Your task to perform on an android device: Open display settings Image 0: 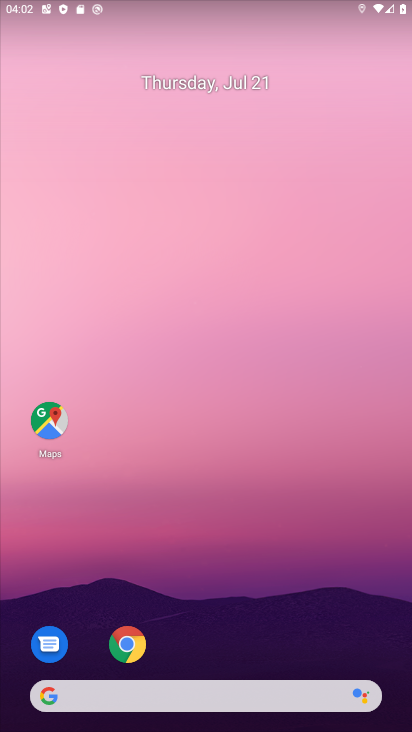
Step 0: drag from (267, 674) to (269, 63)
Your task to perform on an android device: Open display settings Image 1: 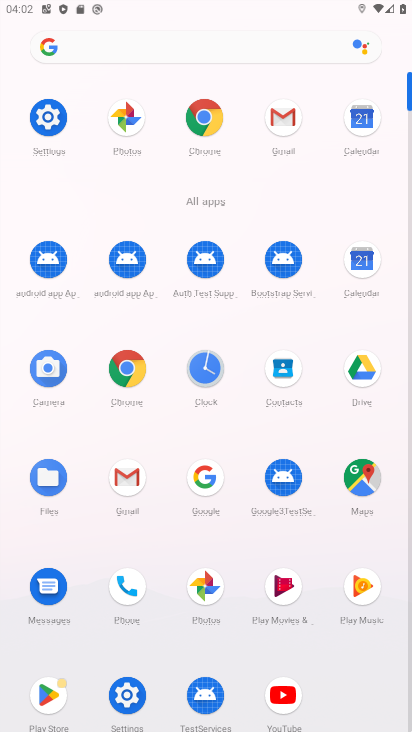
Step 1: click (51, 124)
Your task to perform on an android device: Open display settings Image 2: 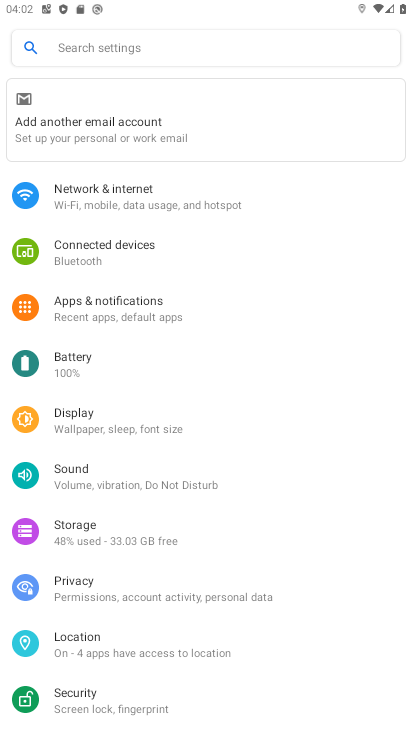
Step 2: click (82, 418)
Your task to perform on an android device: Open display settings Image 3: 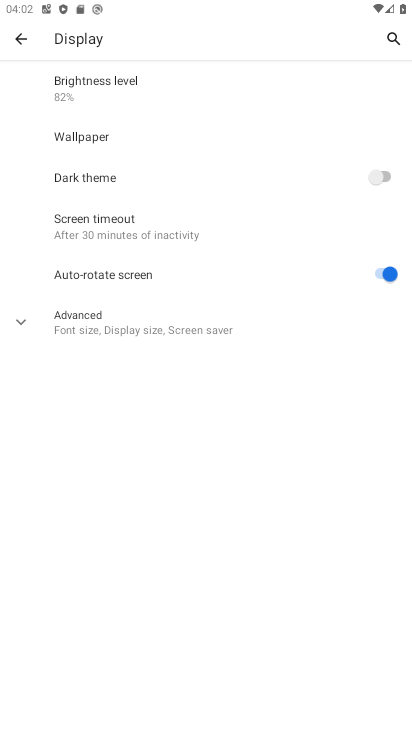
Step 3: task complete